Your task to perform on an android device: see tabs open on other devices in the chrome app Image 0: 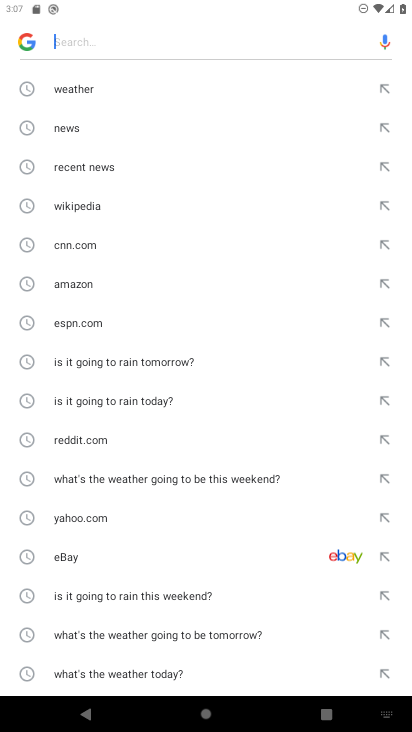
Step 0: press home button
Your task to perform on an android device: see tabs open on other devices in the chrome app Image 1: 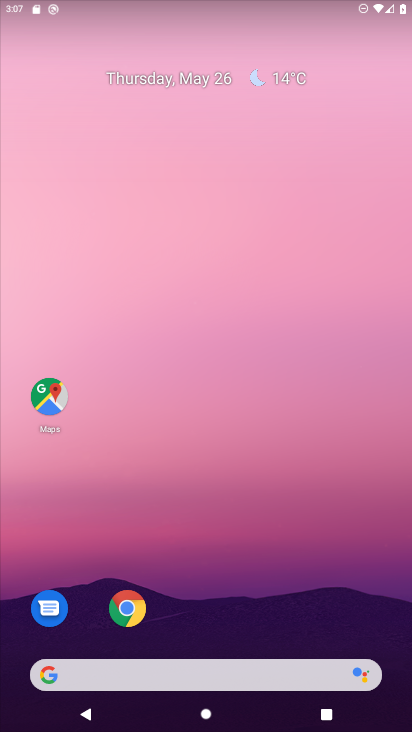
Step 1: drag from (303, 587) to (286, 120)
Your task to perform on an android device: see tabs open on other devices in the chrome app Image 2: 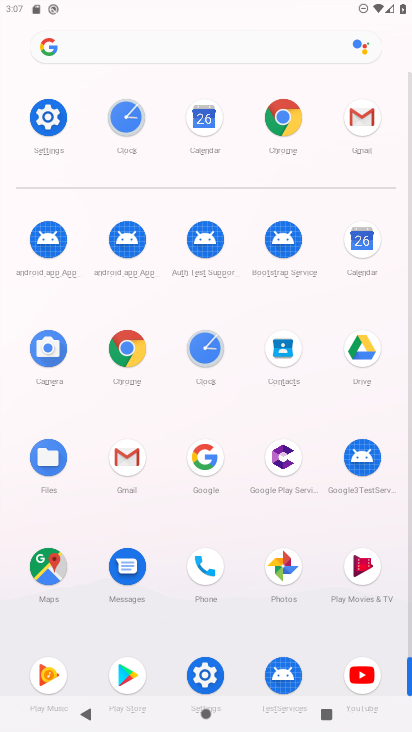
Step 2: click (286, 121)
Your task to perform on an android device: see tabs open on other devices in the chrome app Image 3: 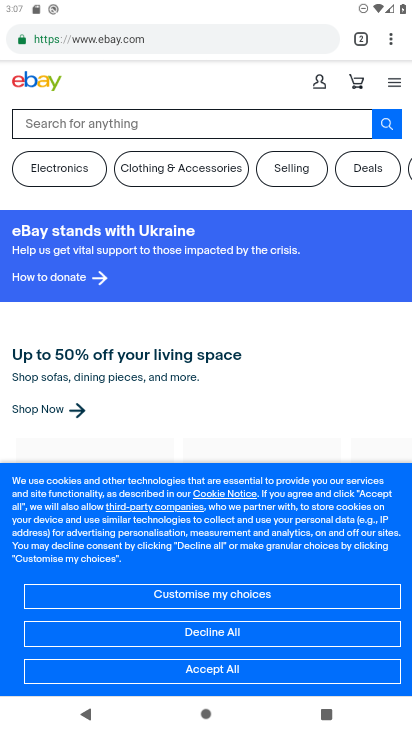
Step 3: task complete